Your task to perform on an android device: toggle airplane mode Image 0: 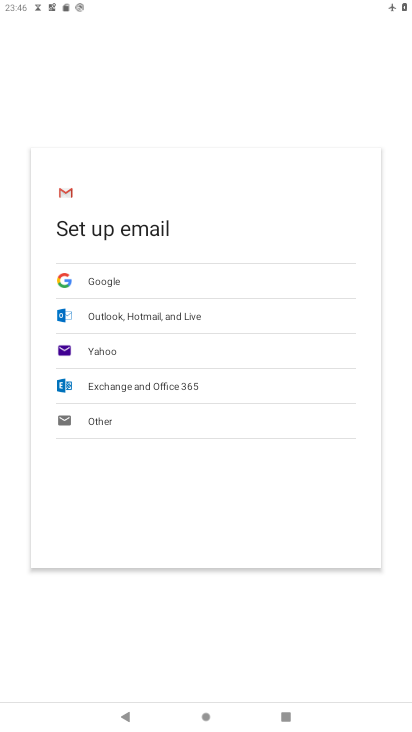
Step 0: press home button
Your task to perform on an android device: toggle airplane mode Image 1: 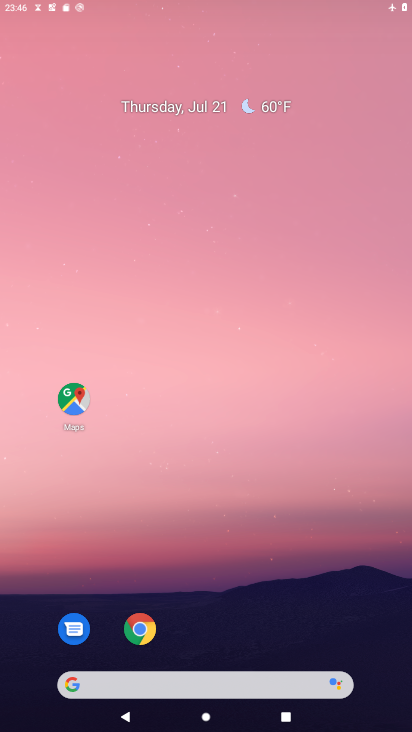
Step 1: drag from (234, 652) to (224, 262)
Your task to perform on an android device: toggle airplane mode Image 2: 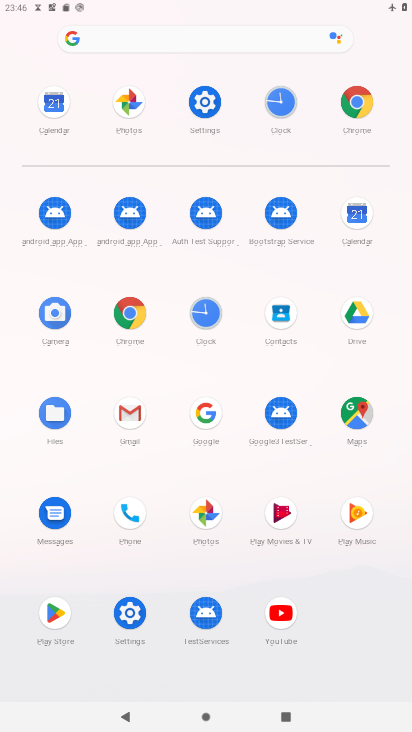
Step 2: click (207, 90)
Your task to perform on an android device: toggle airplane mode Image 3: 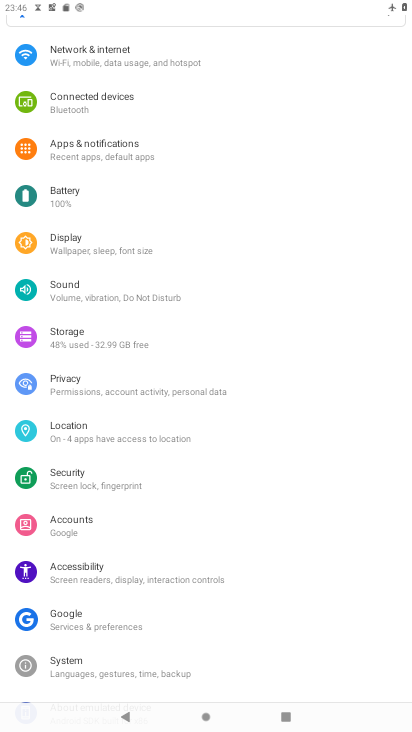
Step 3: click (121, 55)
Your task to perform on an android device: toggle airplane mode Image 4: 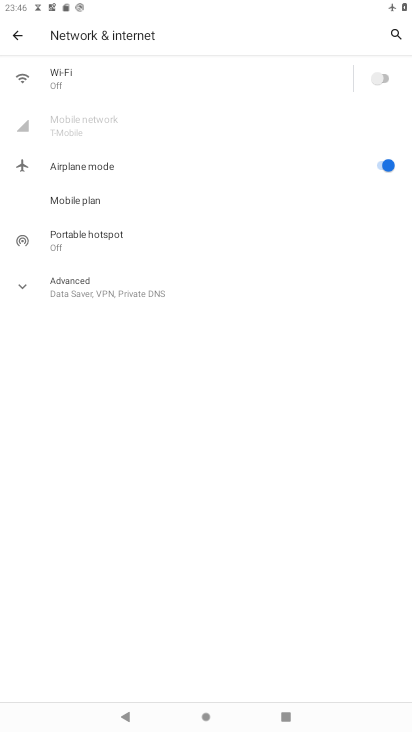
Step 4: click (366, 165)
Your task to perform on an android device: toggle airplane mode Image 5: 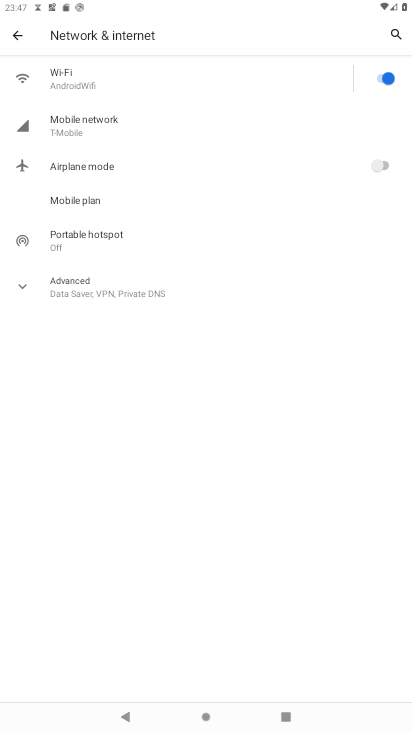
Step 5: task complete